Your task to perform on an android device: Go to sound settings Image 0: 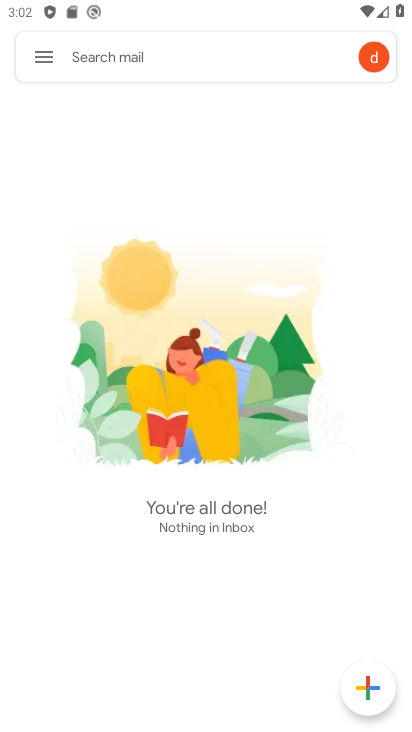
Step 0: press home button
Your task to perform on an android device: Go to sound settings Image 1: 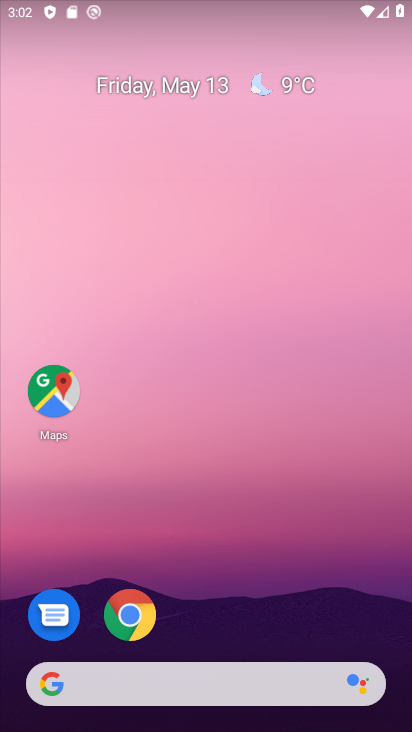
Step 1: drag from (219, 727) to (226, 197)
Your task to perform on an android device: Go to sound settings Image 2: 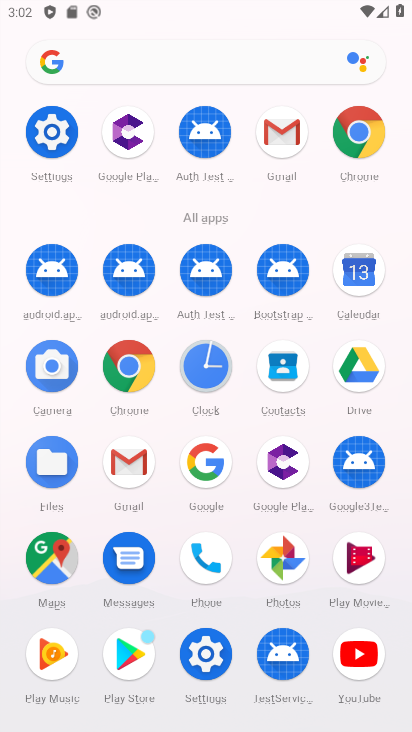
Step 2: click (47, 141)
Your task to perform on an android device: Go to sound settings Image 3: 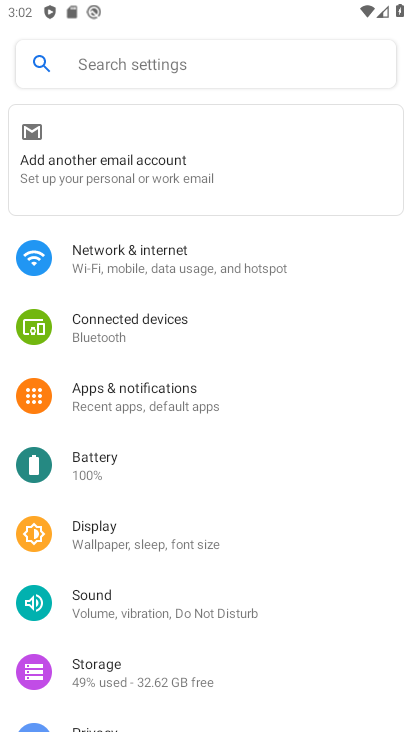
Step 3: click (111, 594)
Your task to perform on an android device: Go to sound settings Image 4: 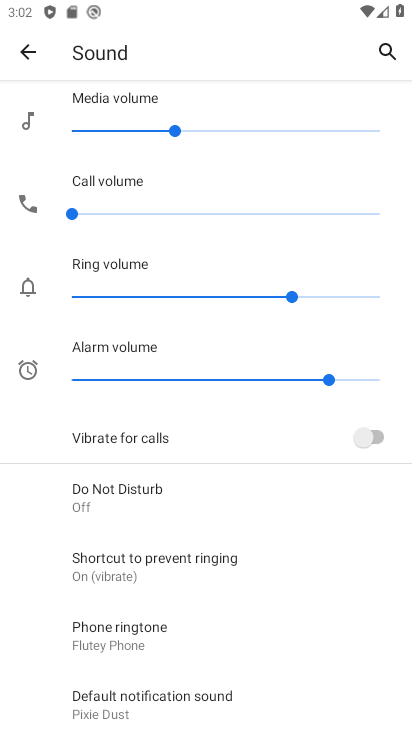
Step 4: task complete